Your task to perform on an android device: Play the last video I watched on Youtube Image 0: 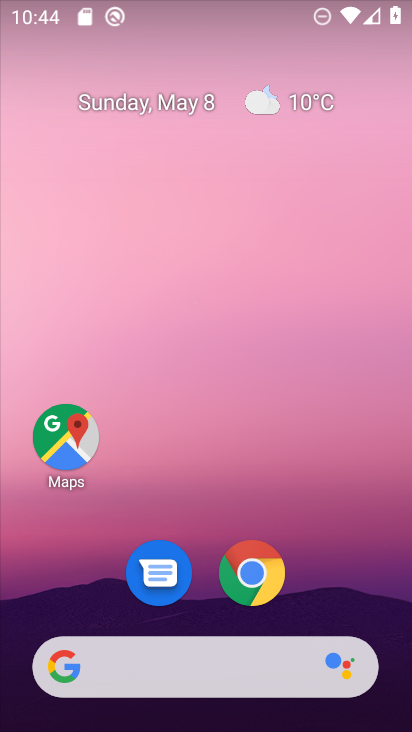
Step 0: drag from (370, 600) to (354, 158)
Your task to perform on an android device: Play the last video I watched on Youtube Image 1: 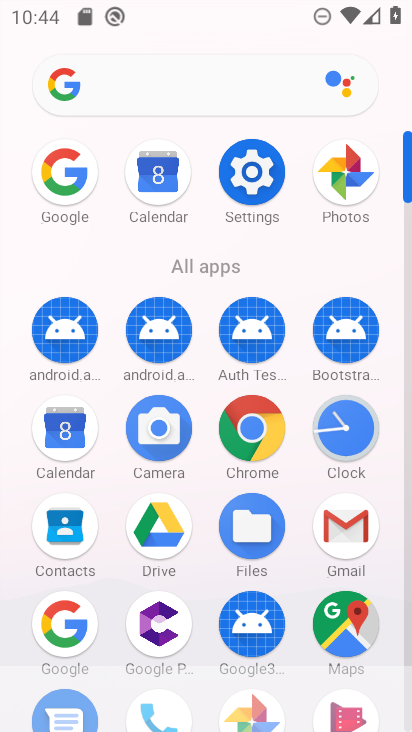
Step 1: click (407, 723)
Your task to perform on an android device: Play the last video I watched on Youtube Image 2: 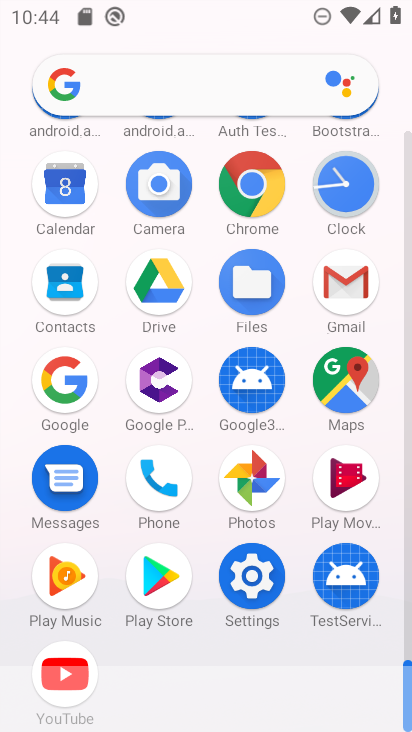
Step 2: click (56, 661)
Your task to perform on an android device: Play the last video I watched on Youtube Image 3: 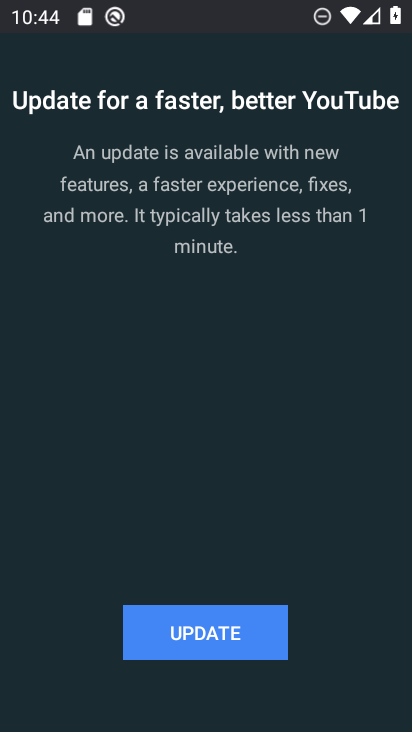
Step 3: click (174, 633)
Your task to perform on an android device: Play the last video I watched on Youtube Image 4: 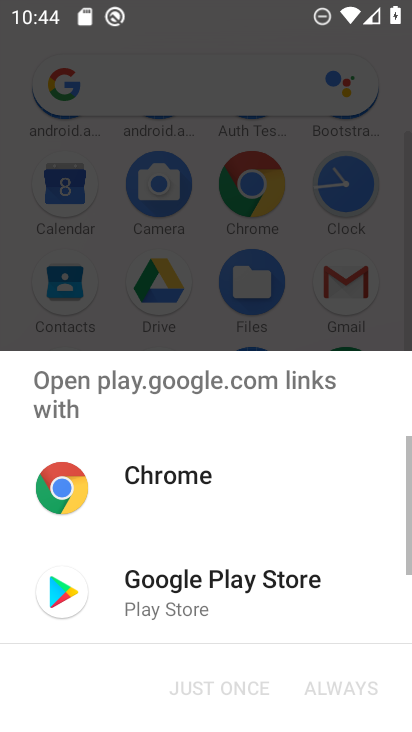
Step 4: click (174, 610)
Your task to perform on an android device: Play the last video I watched on Youtube Image 5: 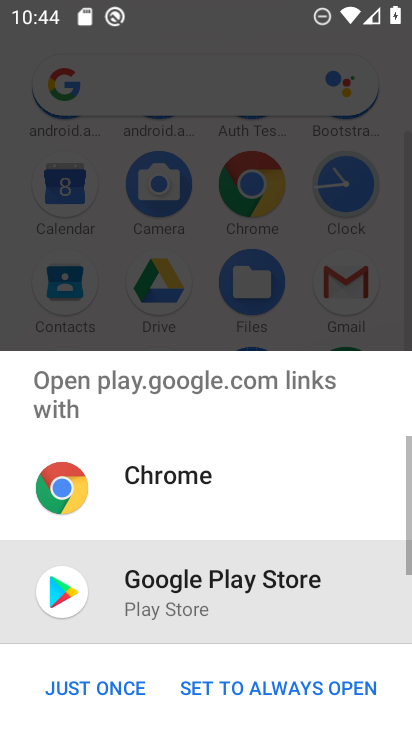
Step 5: click (117, 687)
Your task to perform on an android device: Play the last video I watched on Youtube Image 6: 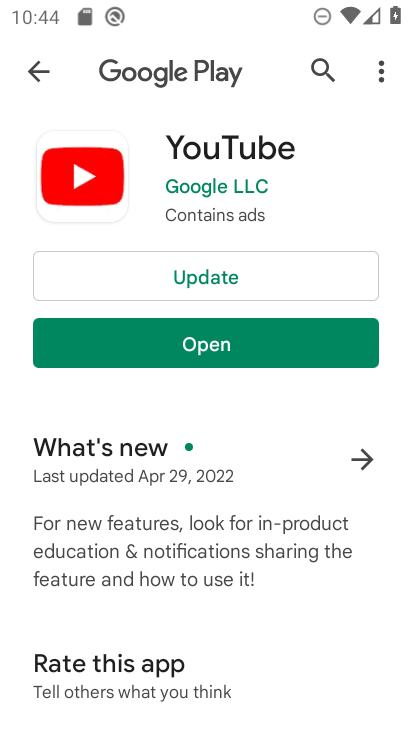
Step 6: click (232, 286)
Your task to perform on an android device: Play the last video I watched on Youtube Image 7: 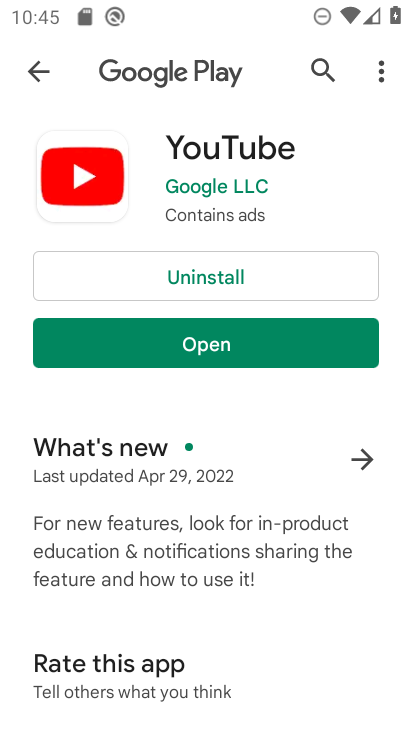
Step 7: click (310, 343)
Your task to perform on an android device: Play the last video I watched on Youtube Image 8: 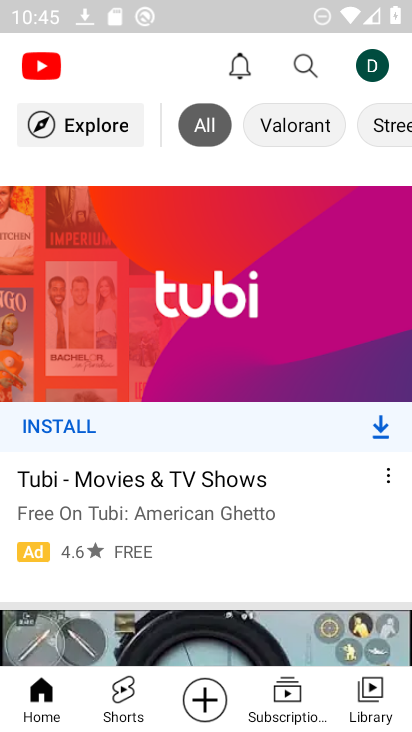
Step 8: drag from (306, 3) to (385, 622)
Your task to perform on an android device: Play the last video I watched on Youtube Image 9: 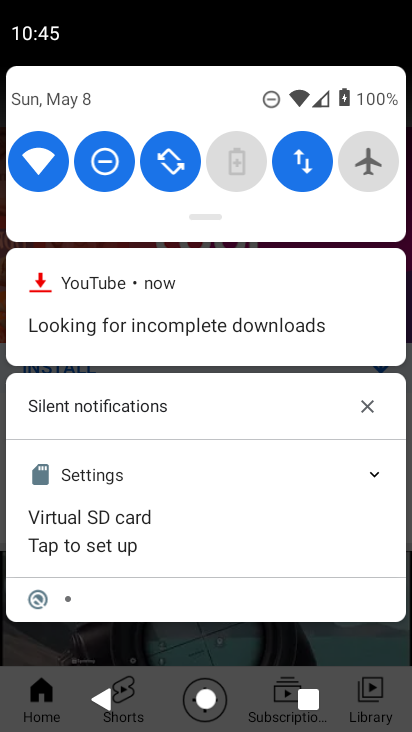
Step 9: drag from (243, 662) to (243, 75)
Your task to perform on an android device: Play the last video I watched on Youtube Image 10: 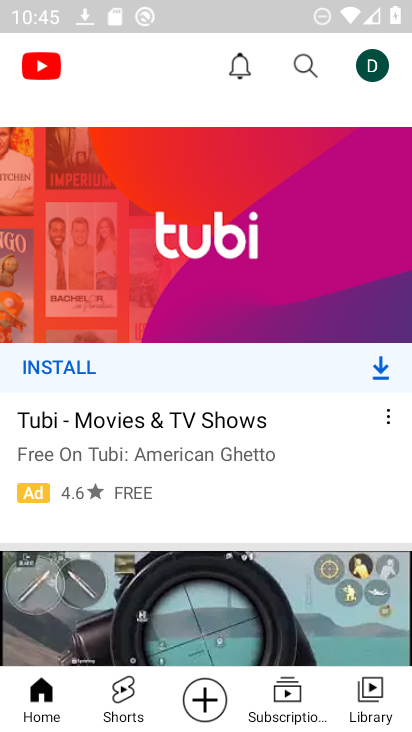
Step 10: click (373, 707)
Your task to perform on an android device: Play the last video I watched on Youtube Image 11: 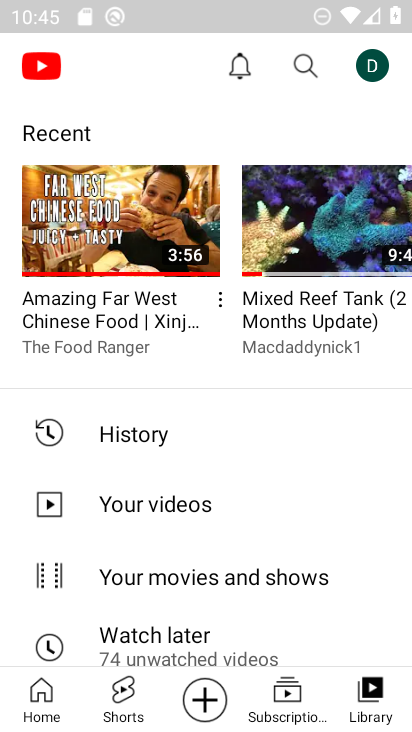
Step 11: click (112, 295)
Your task to perform on an android device: Play the last video I watched on Youtube Image 12: 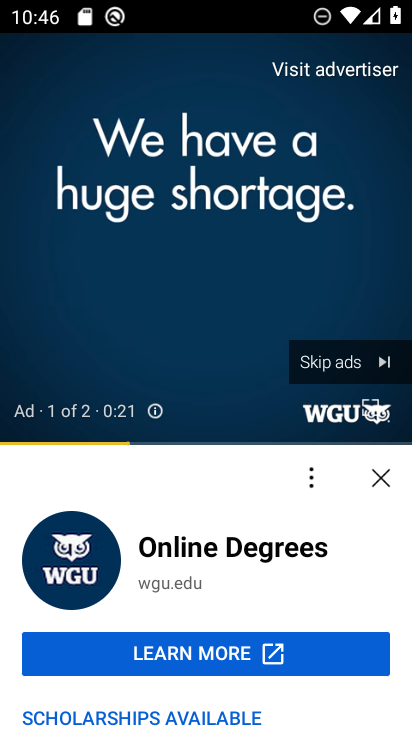
Step 12: click (378, 367)
Your task to perform on an android device: Play the last video I watched on Youtube Image 13: 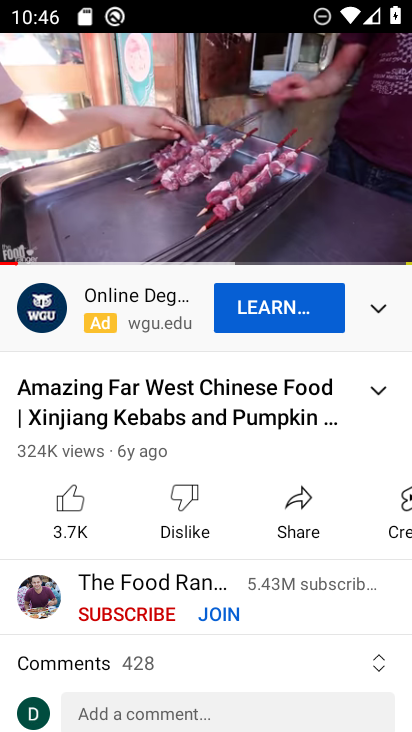
Step 13: task complete